Your task to perform on an android device: Open the phone app and click the voicemail tab. Image 0: 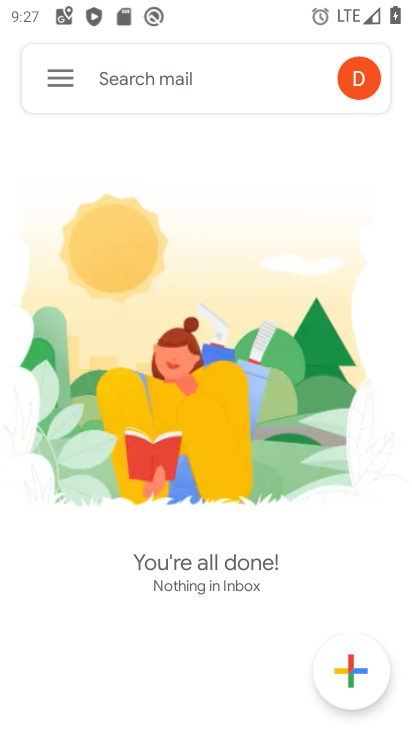
Step 0: press home button
Your task to perform on an android device: Open the phone app and click the voicemail tab. Image 1: 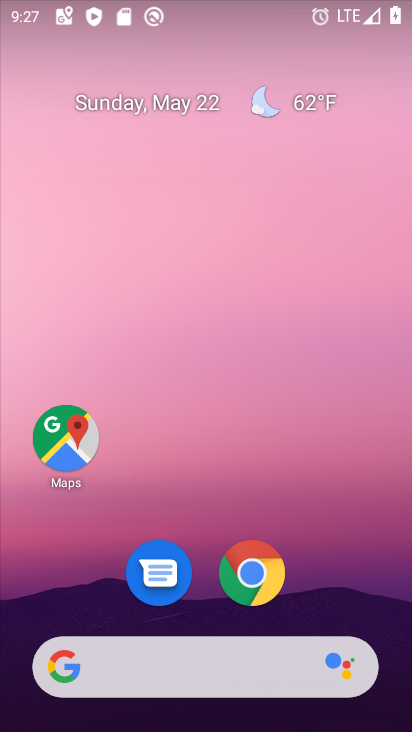
Step 1: drag from (253, 256) to (240, 155)
Your task to perform on an android device: Open the phone app and click the voicemail tab. Image 2: 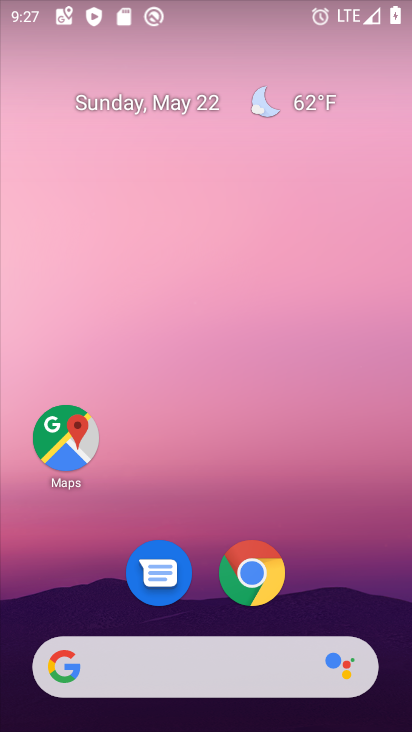
Step 2: drag from (260, 618) to (230, 79)
Your task to perform on an android device: Open the phone app and click the voicemail tab. Image 3: 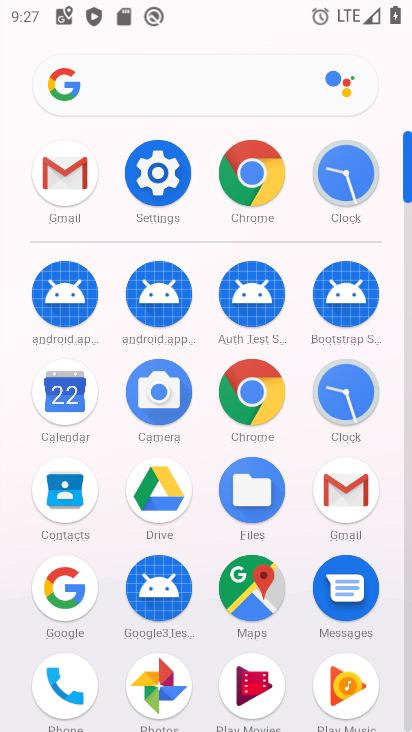
Step 3: click (67, 686)
Your task to perform on an android device: Open the phone app and click the voicemail tab. Image 4: 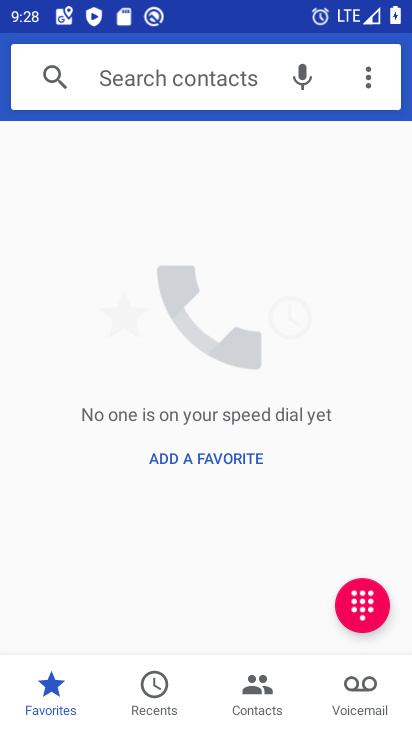
Step 4: click (356, 692)
Your task to perform on an android device: Open the phone app and click the voicemail tab. Image 5: 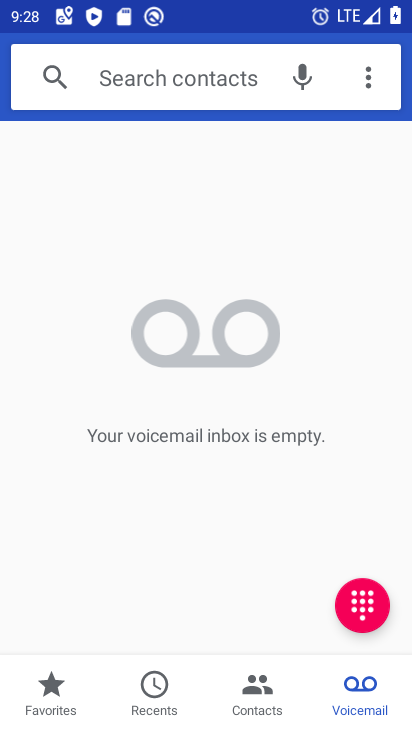
Step 5: task complete